Your task to perform on an android device: Open Wikipedia Image 0: 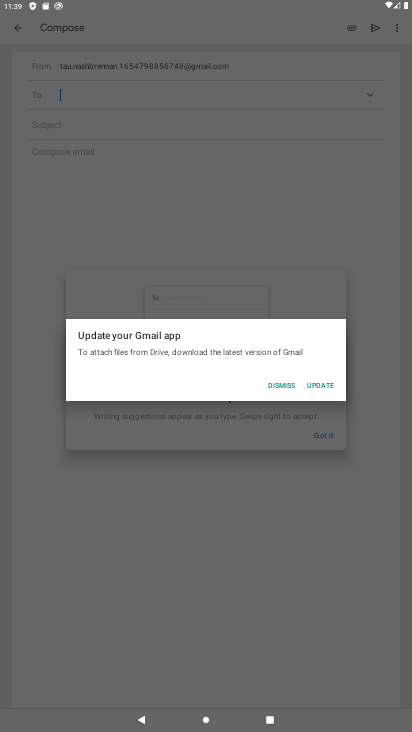
Step 0: click (274, 383)
Your task to perform on an android device: Open Wikipedia Image 1: 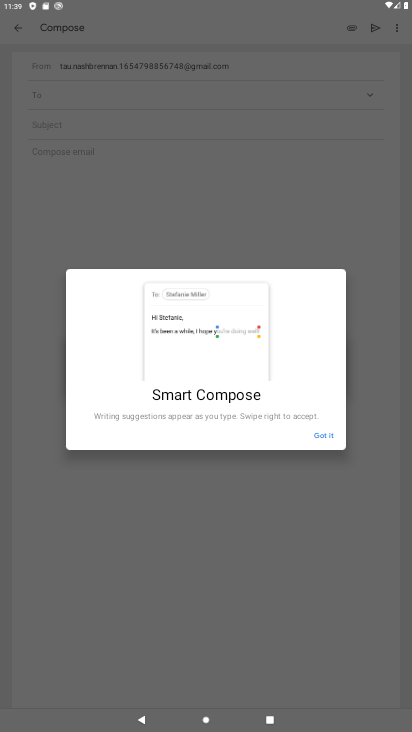
Step 1: click (320, 430)
Your task to perform on an android device: Open Wikipedia Image 2: 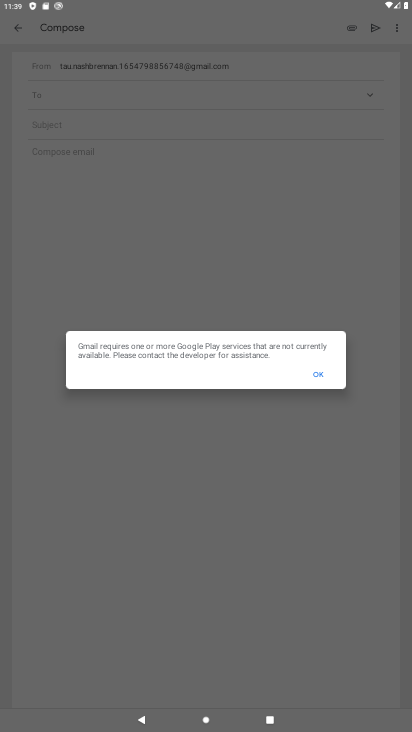
Step 2: press home button
Your task to perform on an android device: Open Wikipedia Image 3: 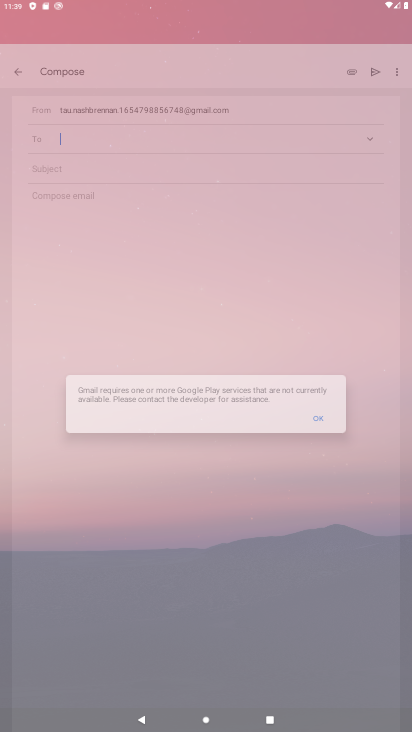
Step 3: drag from (249, 573) to (307, 218)
Your task to perform on an android device: Open Wikipedia Image 4: 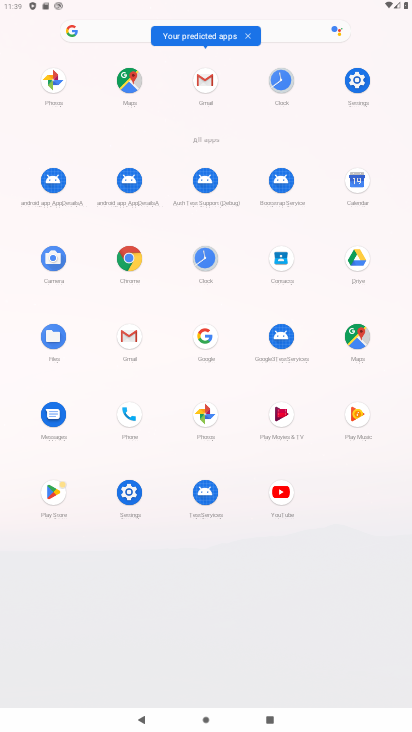
Step 4: click (126, 25)
Your task to perform on an android device: Open Wikipedia Image 5: 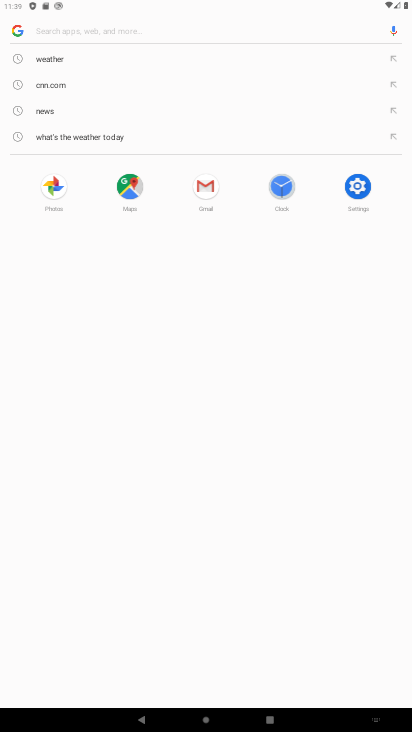
Step 5: type "Wikipedia"
Your task to perform on an android device: Open Wikipedia Image 6: 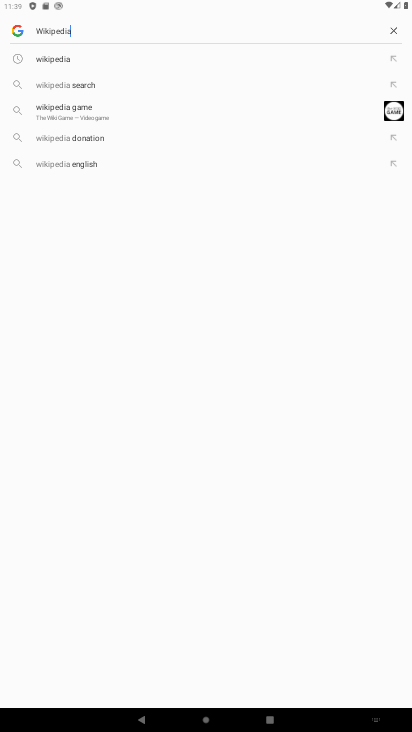
Step 6: click (79, 53)
Your task to perform on an android device: Open Wikipedia Image 7: 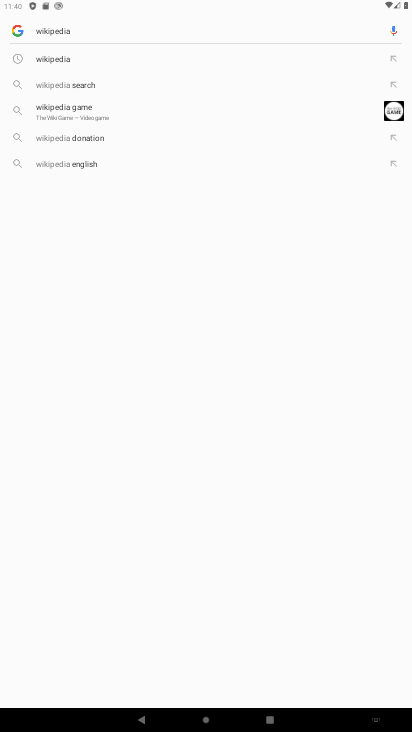
Step 7: click (54, 56)
Your task to perform on an android device: Open Wikipedia Image 8: 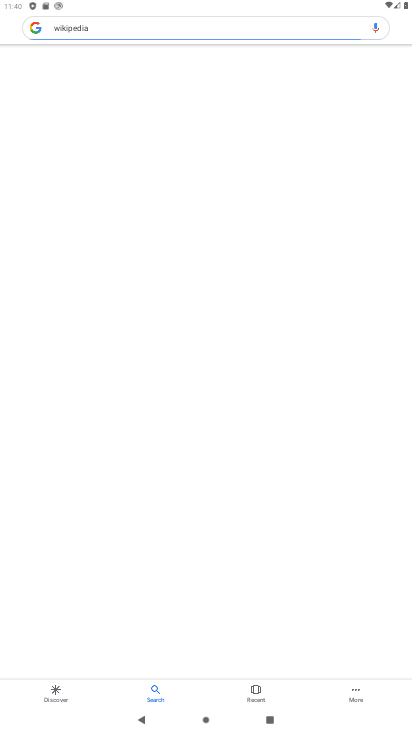
Step 8: drag from (164, 360) to (254, 84)
Your task to perform on an android device: Open Wikipedia Image 9: 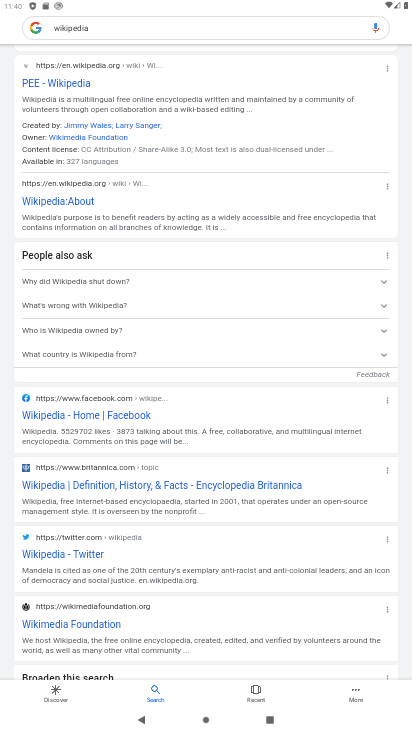
Step 9: drag from (228, 492) to (231, 242)
Your task to perform on an android device: Open Wikipedia Image 10: 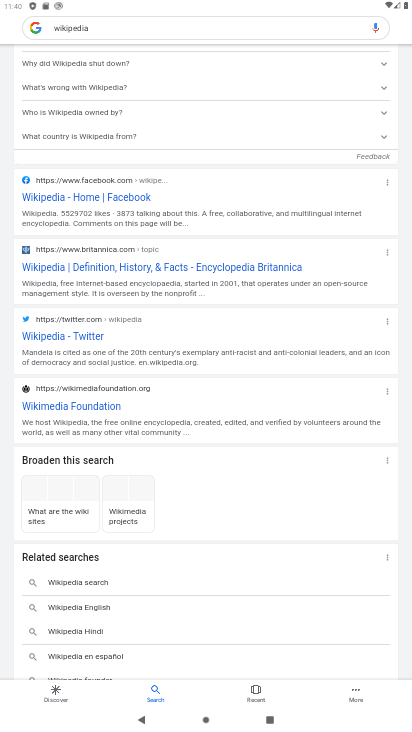
Step 10: drag from (282, 461) to (313, 536)
Your task to perform on an android device: Open Wikipedia Image 11: 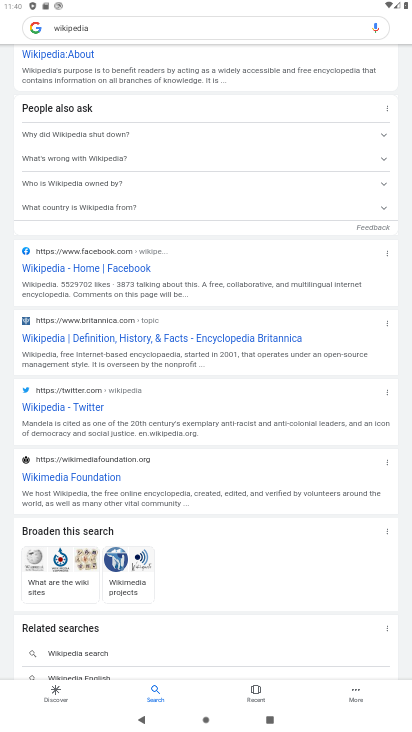
Step 11: drag from (115, 88) to (315, 612)
Your task to perform on an android device: Open Wikipedia Image 12: 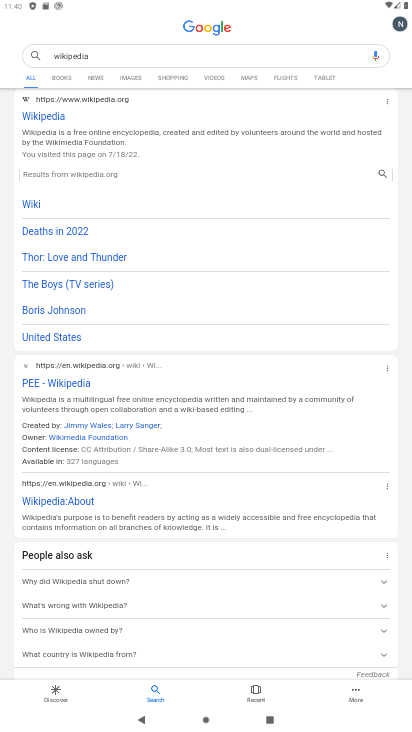
Step 12: click (52, 118)
Your task to perform on an android device: Open Wikipedia Image 13: 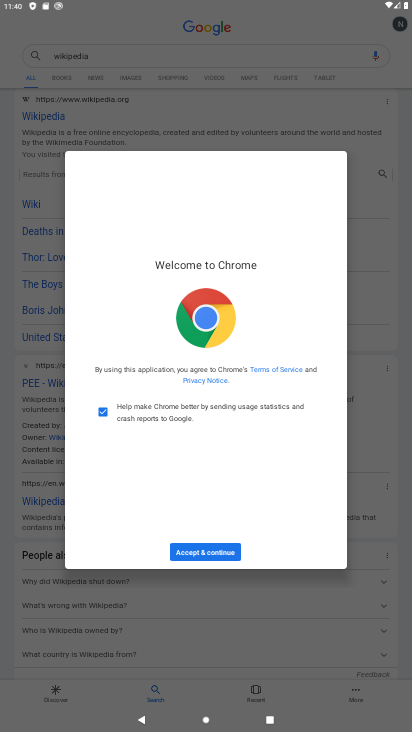
Step 13: click (199, 557)
Your task to perform on an android device: Open Wikipedia Image 14: 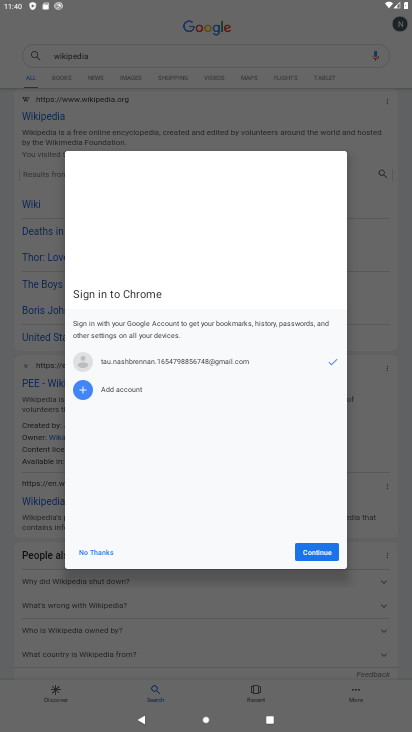
Step 14: click (317, 554)
Your task to perform on an android device: Open Wikipedia Image 15: 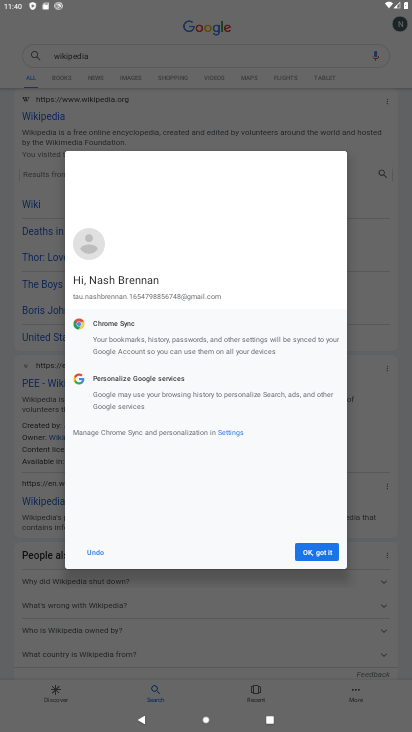
Step 15: click (307, 564)
Your task to perform on an android device: Open Wikipedia Image 16: 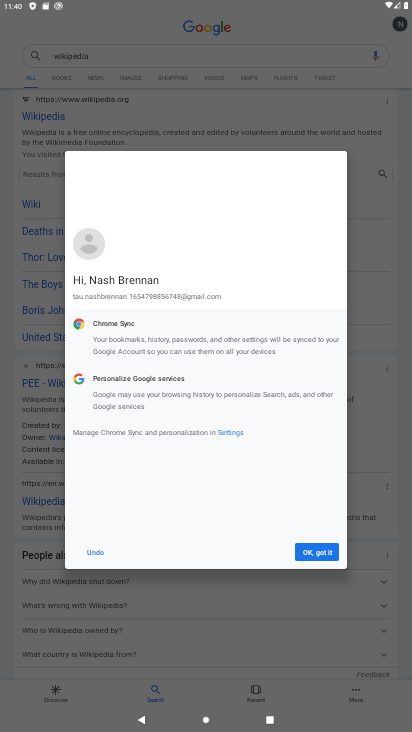
Step 16: click (315, 551)
Your task to perform on an android device: Open Wikipedia Image 17: 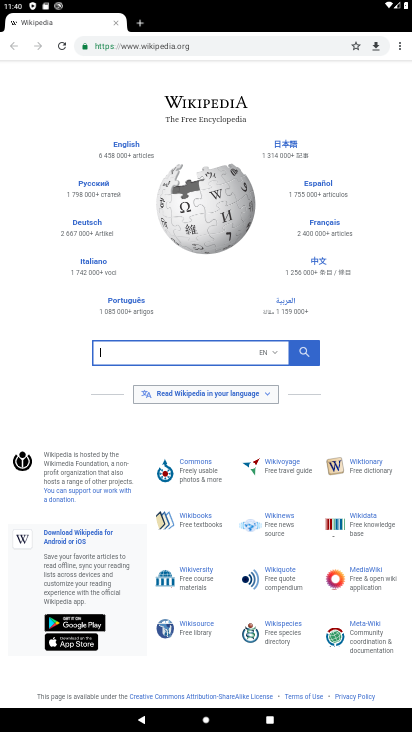
Step 17: task complete